Your task to perform on an android device: toggle priority inbox in the gmail app Image 0: 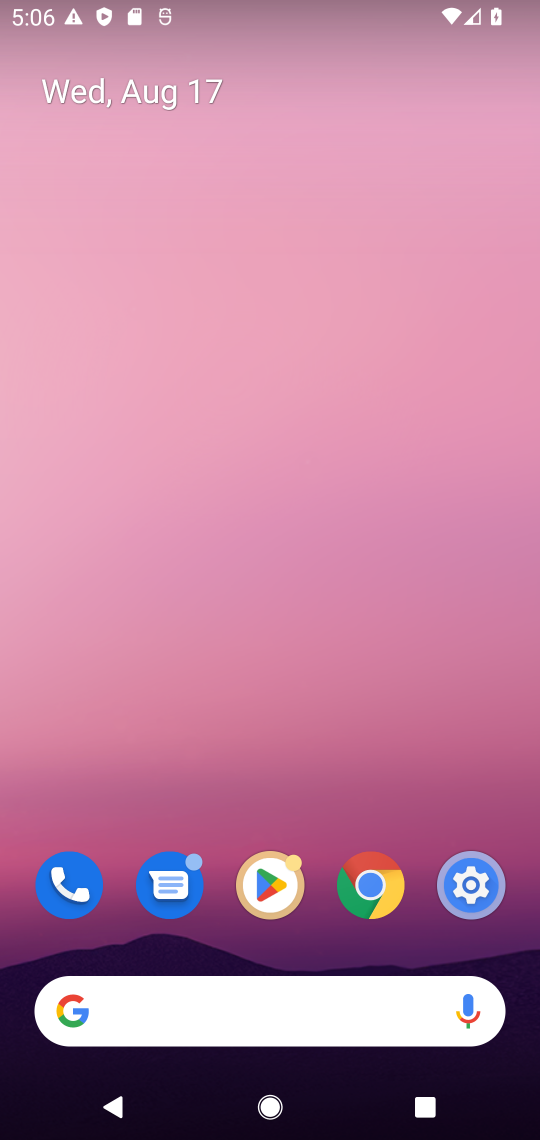
Step 0: drag from (384, 803) to (418, 11)
Your task to perform on an android device: toggle priority inbox in the gmail app Image 1: 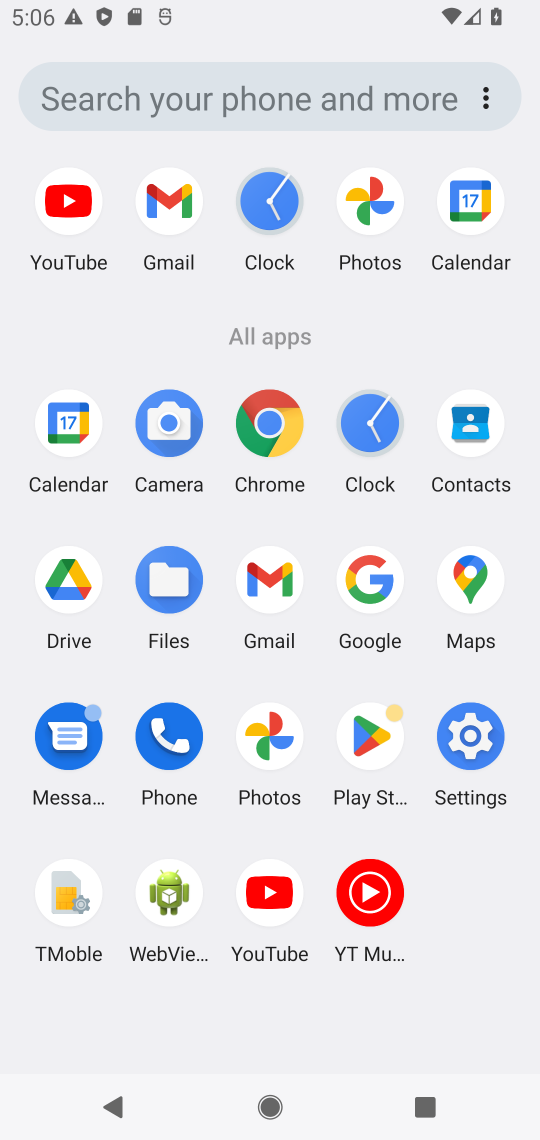
Step 1: click (271, 588)
Your task to perform on an android device: toggle priority inbox in the gmail app Image 2: 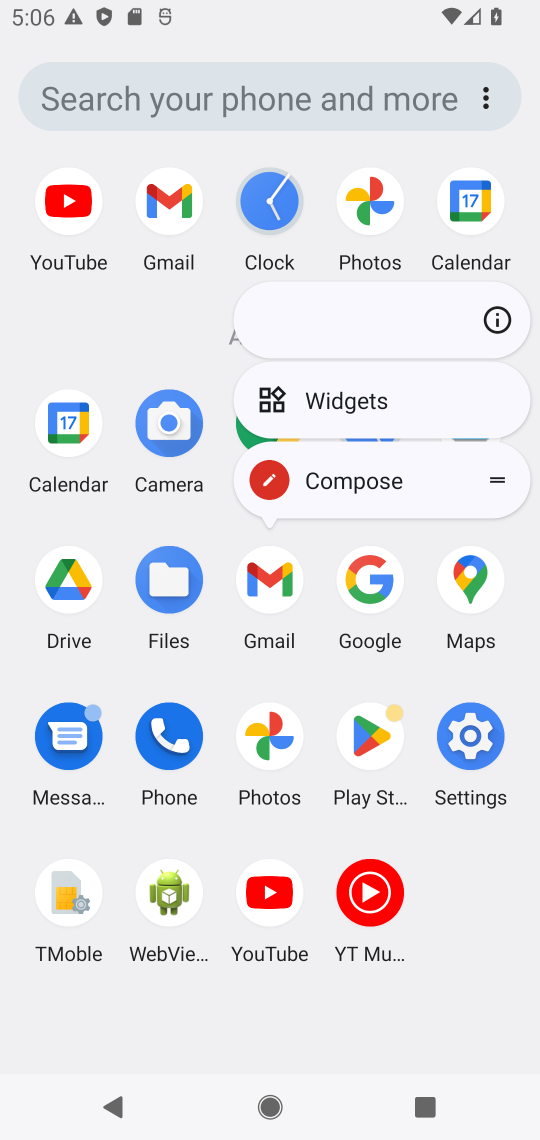
Step 2: click (271, 588)
Your task to perform on an android device: toggle priority inbox in the gmail app Image 3: 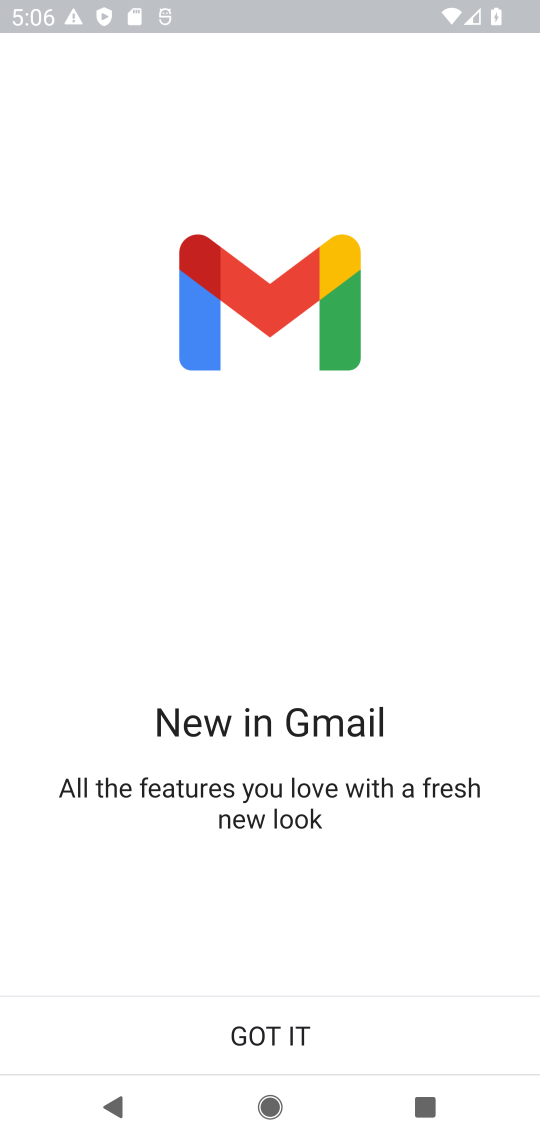
Step 3: click (274, 1023)
Your task to perform on an android device: toggle priority inbox in the gmail app Image 4: 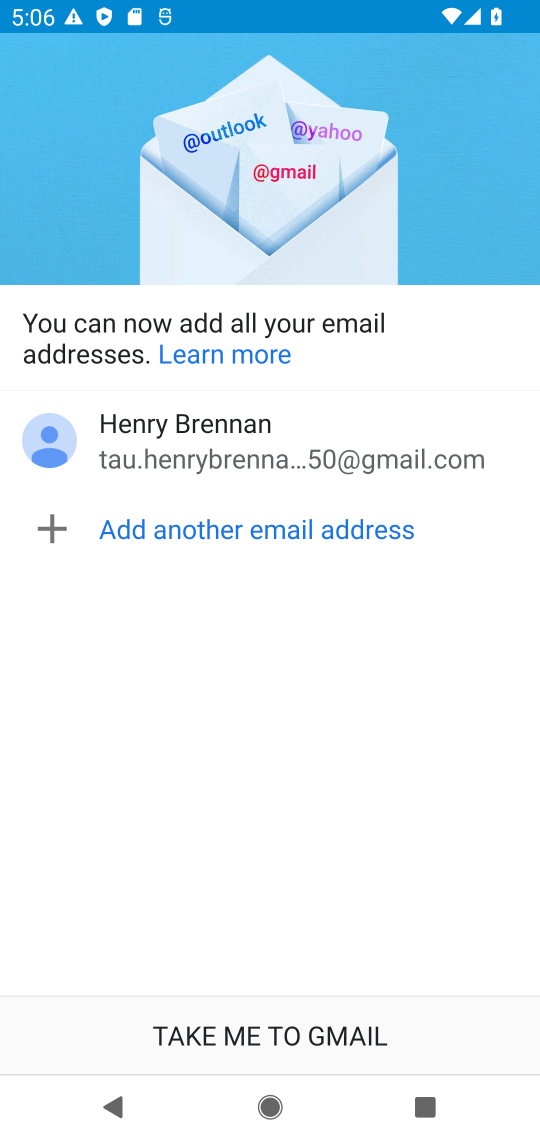
Step 4: click (356, 1061)
Your task to perform on an android device: toggle priority inbox in the gmail app Image 5: 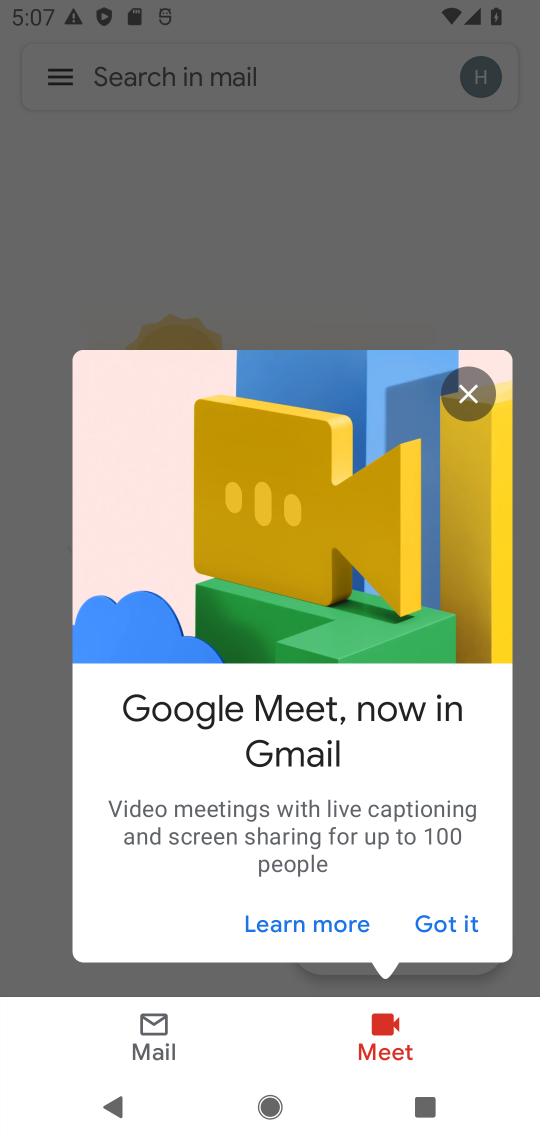
Step 5: click (138, 1051)
Your task to perform on an android device: toggle priority inbox in the gmail app Image 6: 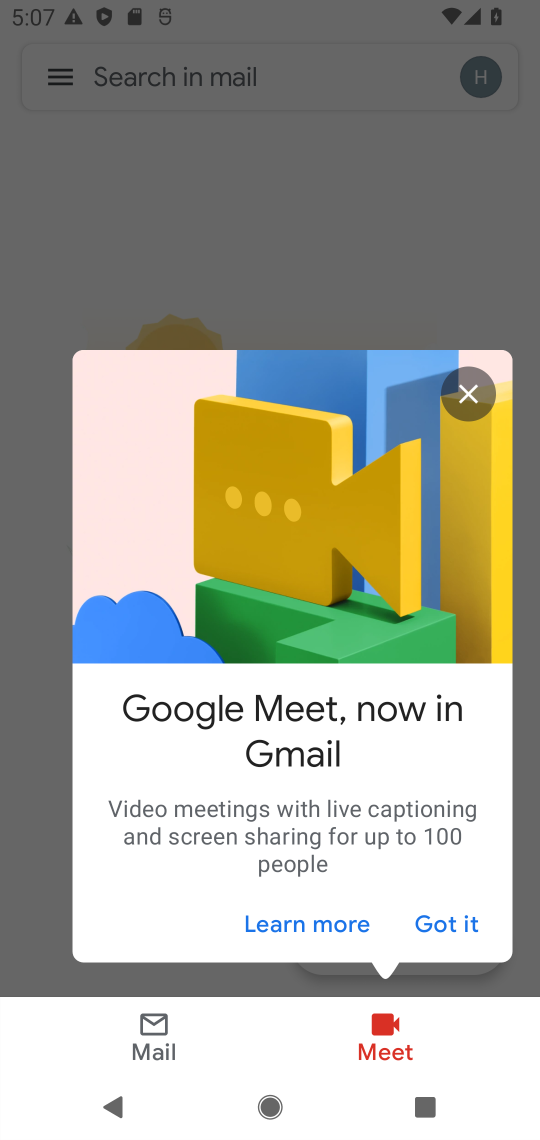
Step 6: click (480, 387)
Your task to perform on an android device: toggle priority inbox in the gmail app Image 7: 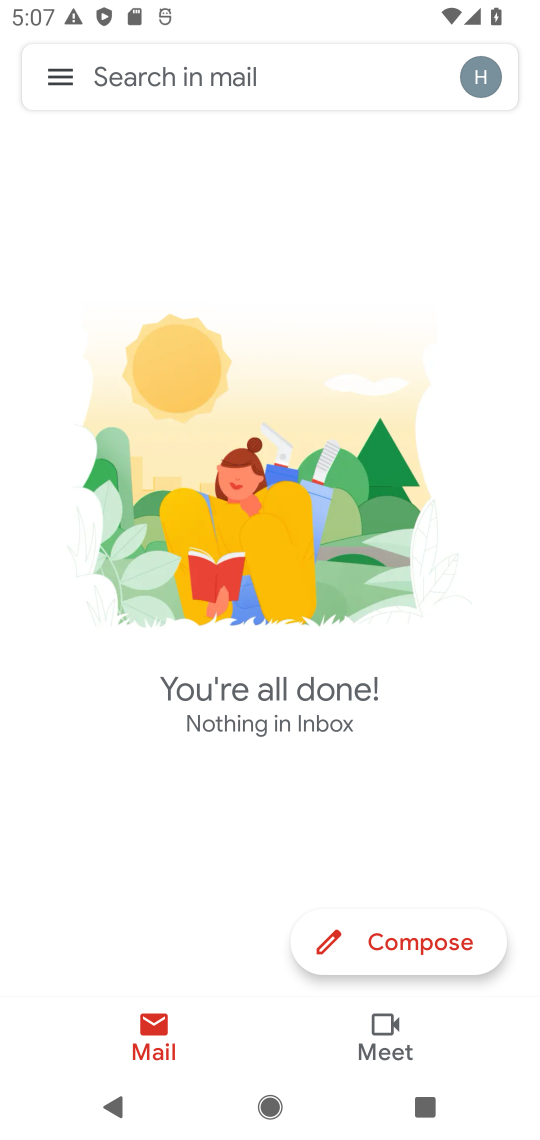
Step 7: click (54, 62)
Your task to perform on an android device: toggle priority inbox in the gmail app Image 8: 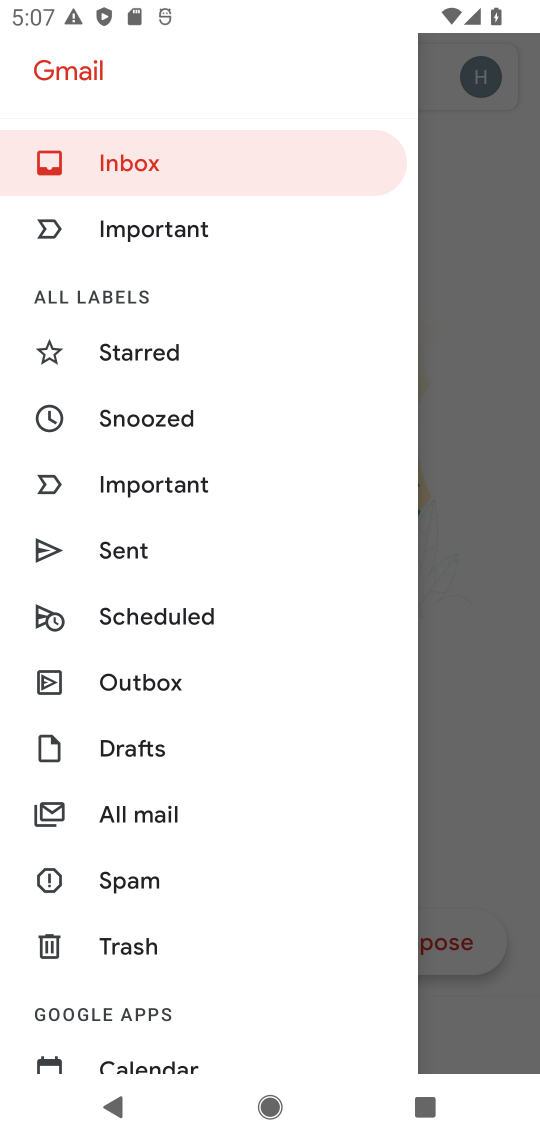
Step 8: drag from (143, 982) to (219, 483)
Your task to perform on an android device: toggle priority inbox in the gmail app Image 9: 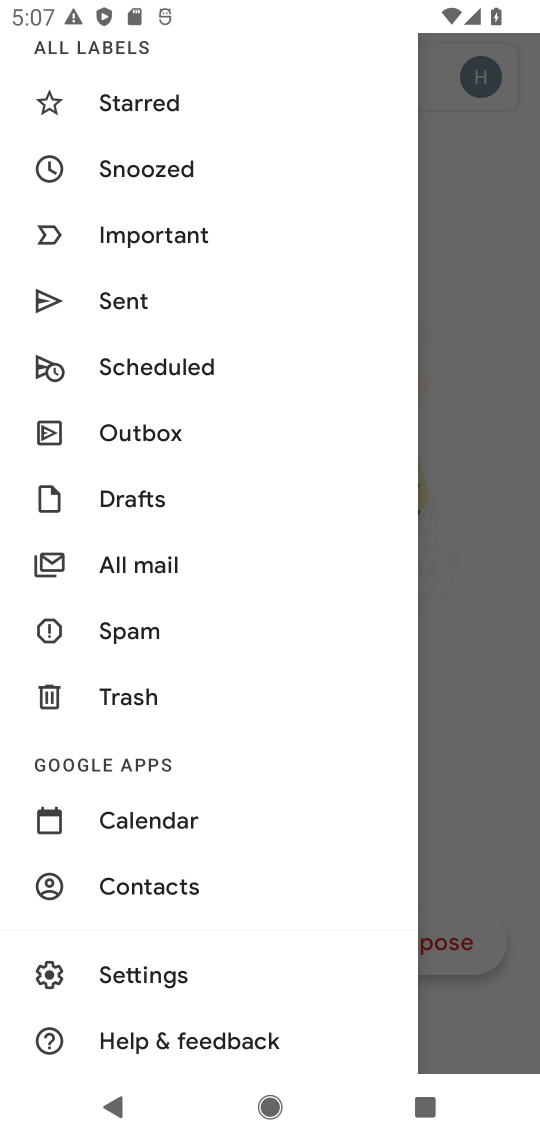
Step 9: click (140, 968)
Your task to perform on an android device: toggle priority inbox in the gmail app Image 10: 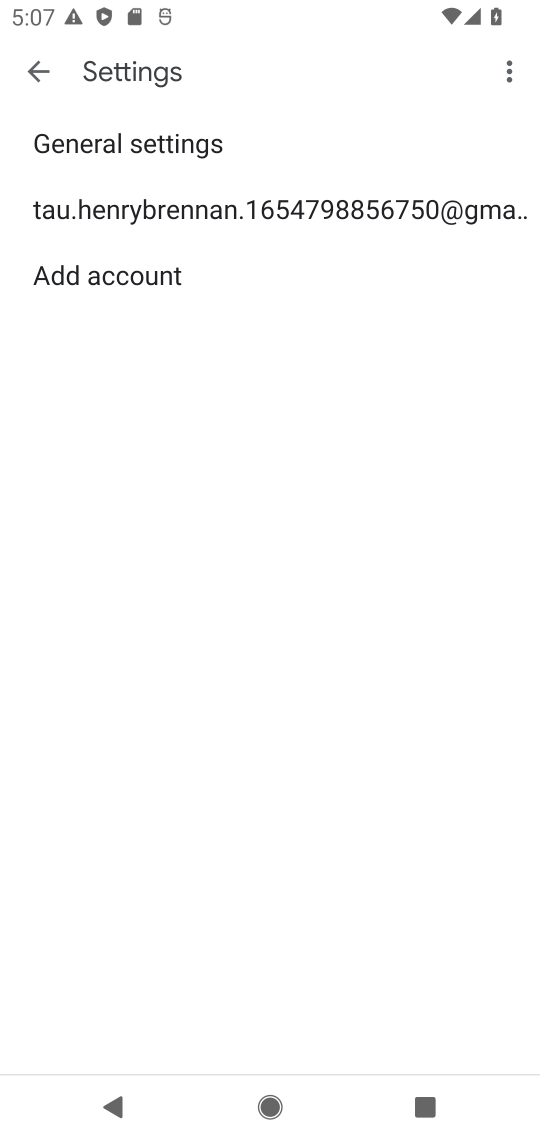
Step 10: click (412, 221)
Your task to perform on an android device: toggle priority inbox in the gmail app Image 11: 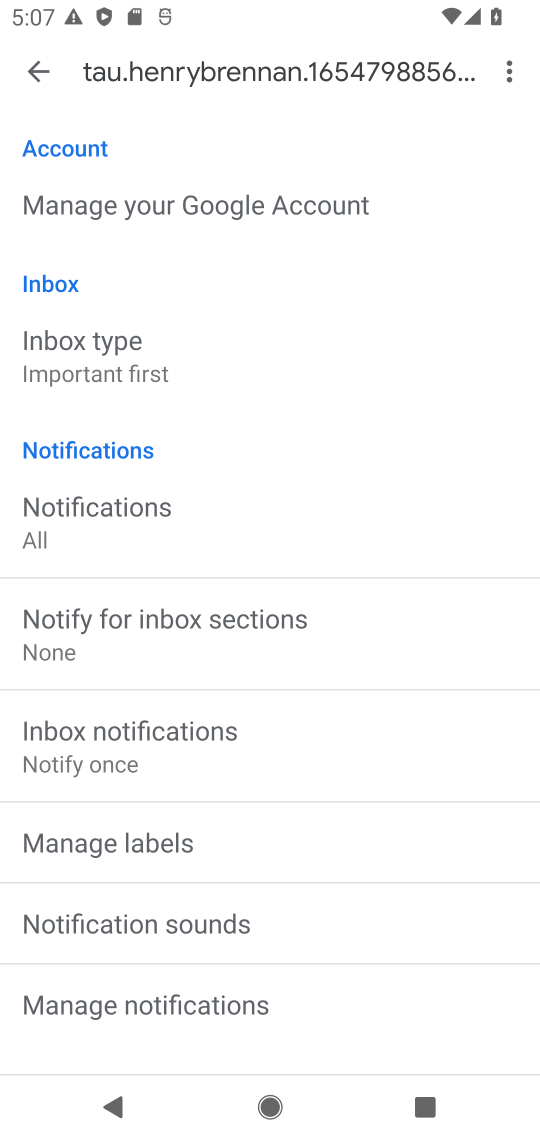
Step 11: click (136, 368)
Your task to perform on an android device: toggle priority inbox in the gmail app Image 12: 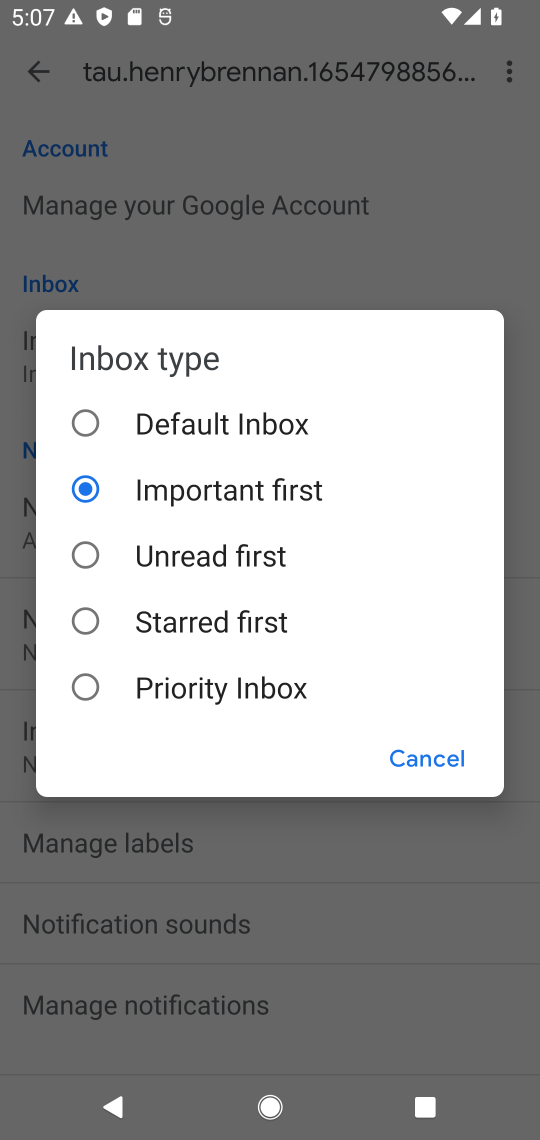
Step 12: click (235, 698)
Your task to perform on an android device: toggle priority inbox in the gmail app Image 13: 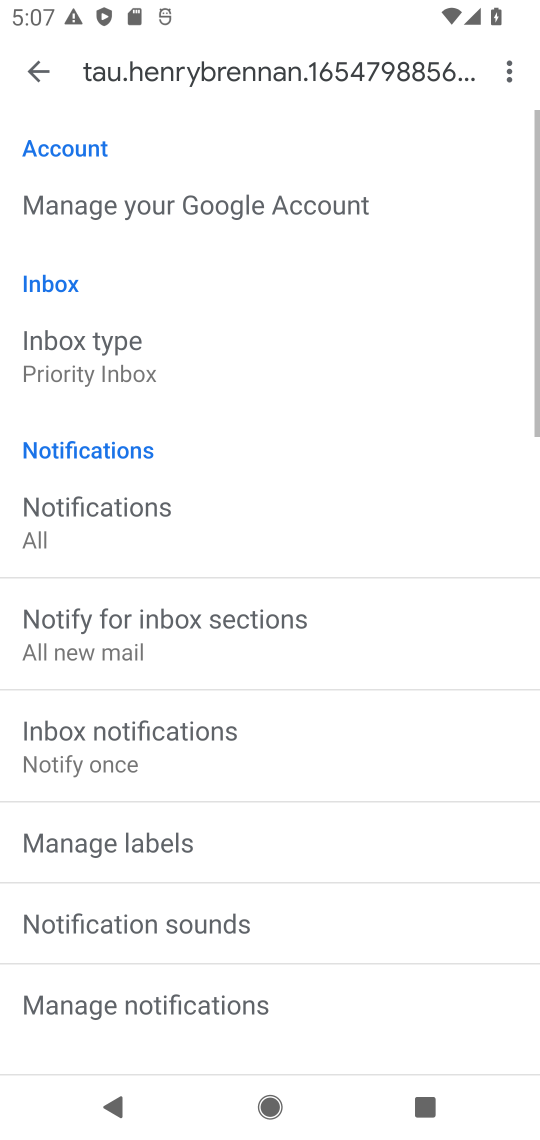
Step 13: task complete